Your task to perform on an android device: Open Google Maps Image 0: 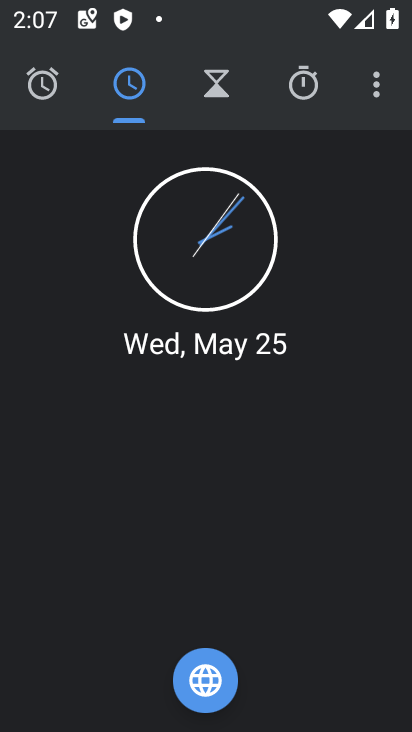
Step 0: press home button
Your task to perform on an android device: Open Google Maps Image 1: 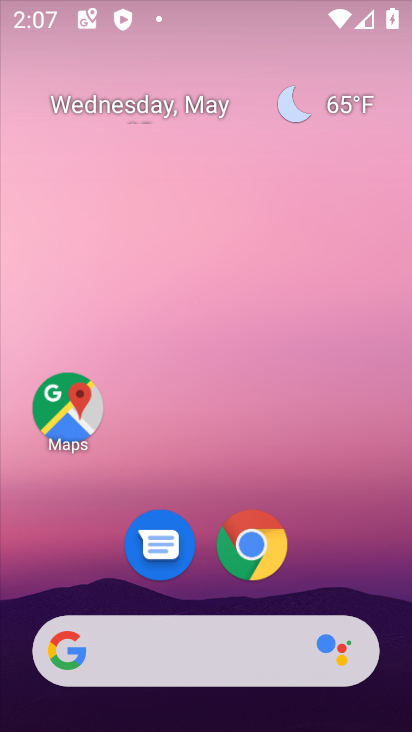
Step 1: drag from (363, 559) to (198, 17)
Your task to perform on an android device: Open Google Maps Image 2: 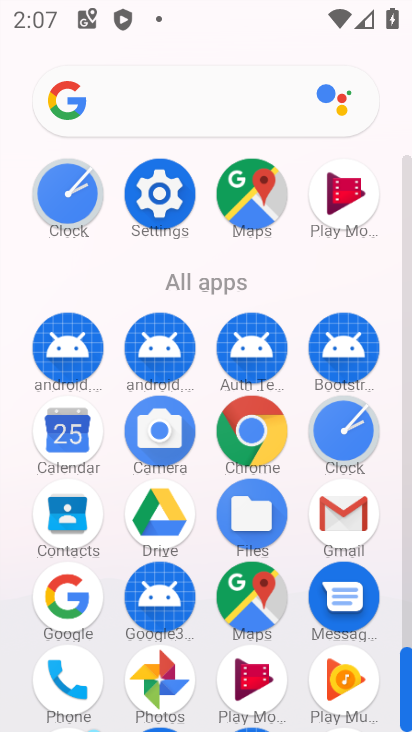
Step 2: click (167, 198)
Your task to perform on an android device: Open Google Maps Image 3: 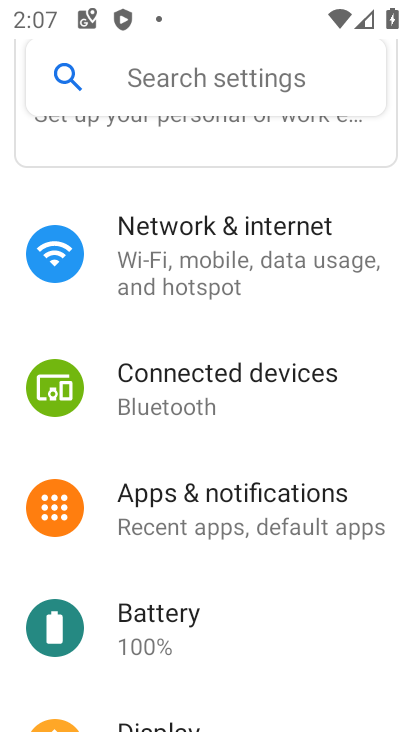
Step 3: press home button
Your task to perform on an android device: Open Google Maps Image 4: 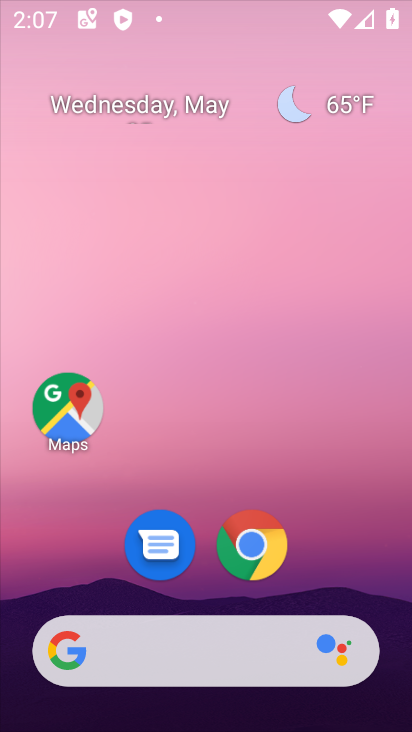
Step 4: click (64, 399)
Your task to perform on an android device: Open Google Maps Image 5: 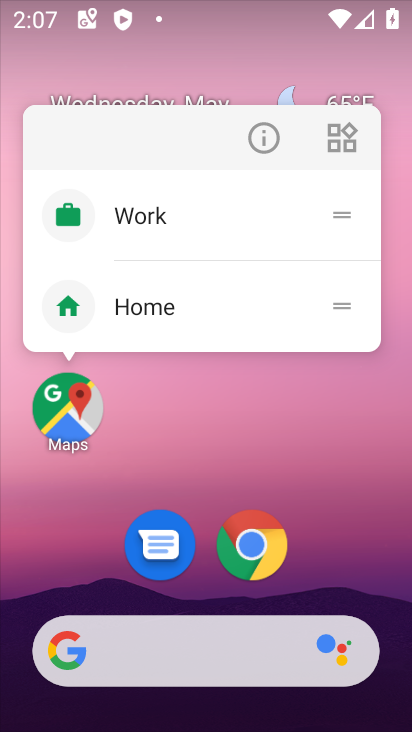
Step 5: click (65, 424)
Your task to perform on an android device: Open Google Maps Image 6: 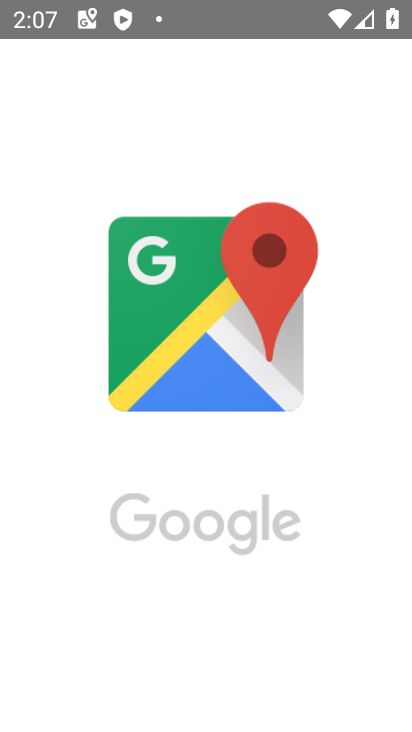
Step 6: task complete